Your task to perform on an android device: set an alarm Image 0: 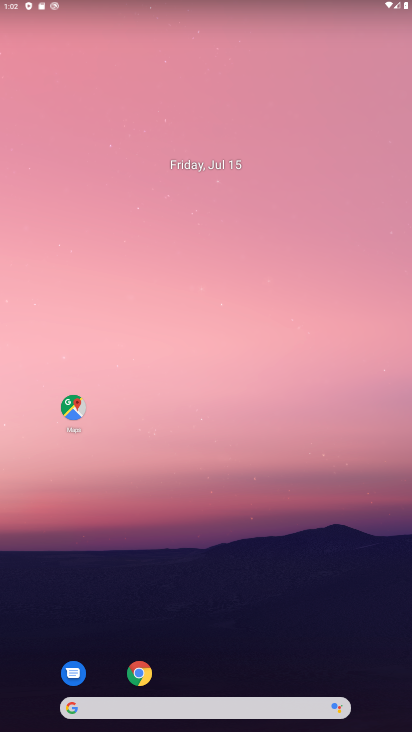
Step 0: drag from (148, 702) to (286, 128)
Your task to perform on an android device: set an alarm Image 1: 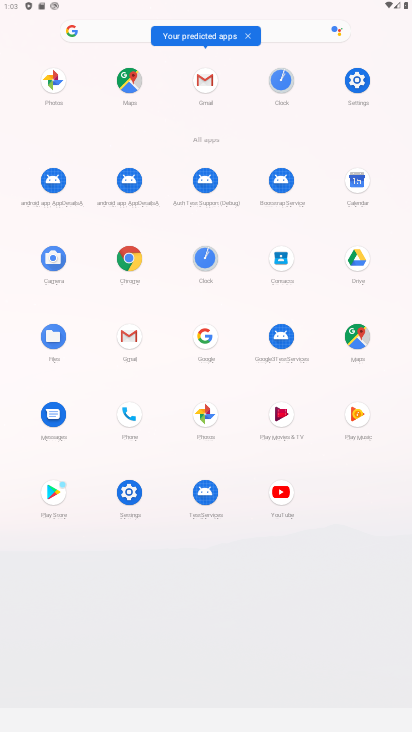
Step 1: click (274, 79)
Your task to perform on an android device: set an alarm Image 2: 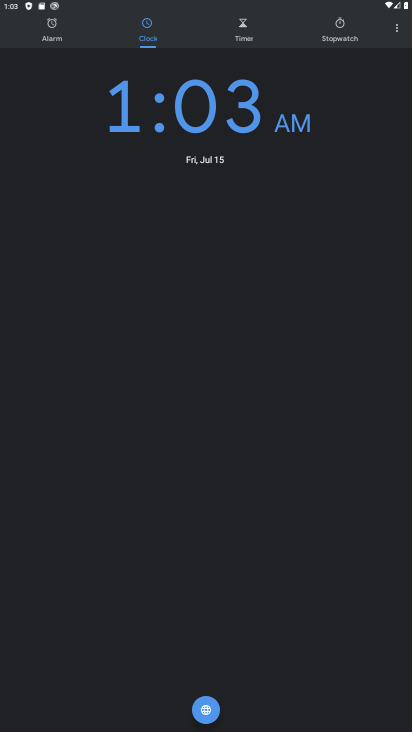
Step 2: click (54, 34)
Your task to perform on an android device: set an alarm Image 3: 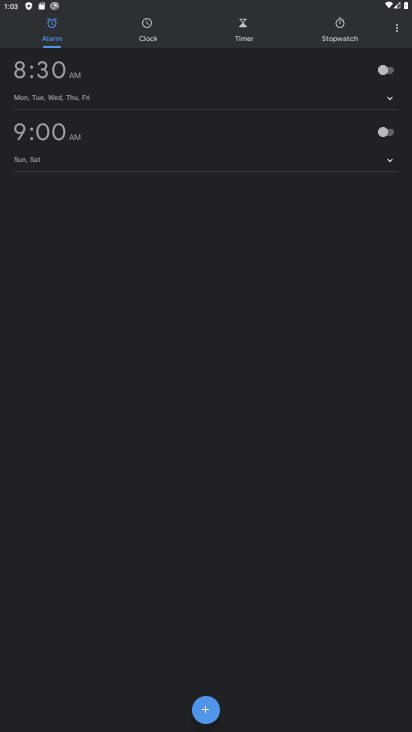
Step 3: click (386, 70)
Your task to perform on an android device: set an alarm Image 4: 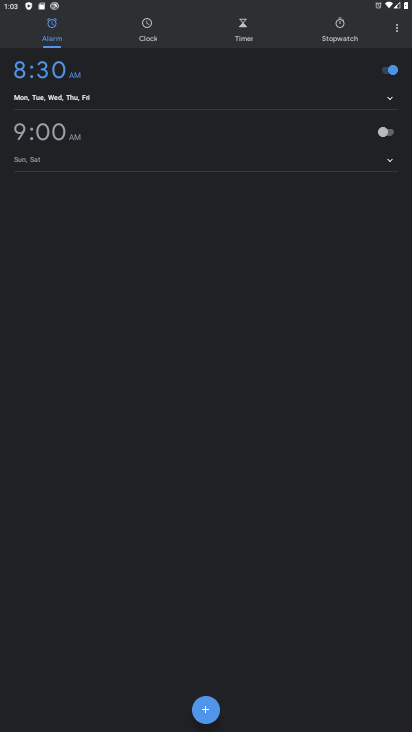
Step 4: task complete